Your task to perform on an android device: What's the weather going to be tomorrow? Image 0: 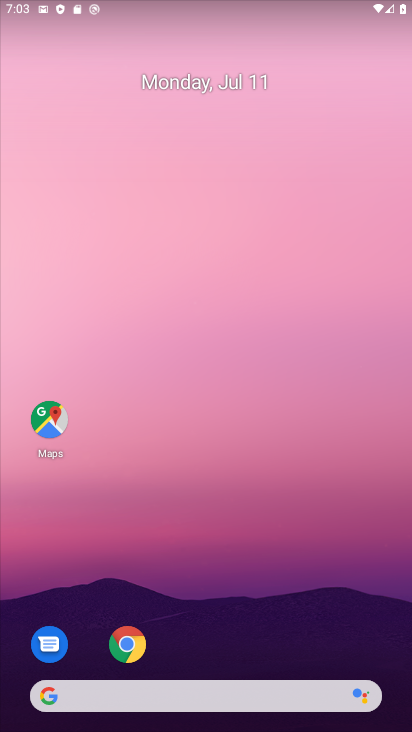
Step 0: click (205, 698)
Your task to perform on an android device: What's the weather going to be tomorrow? Image 1: 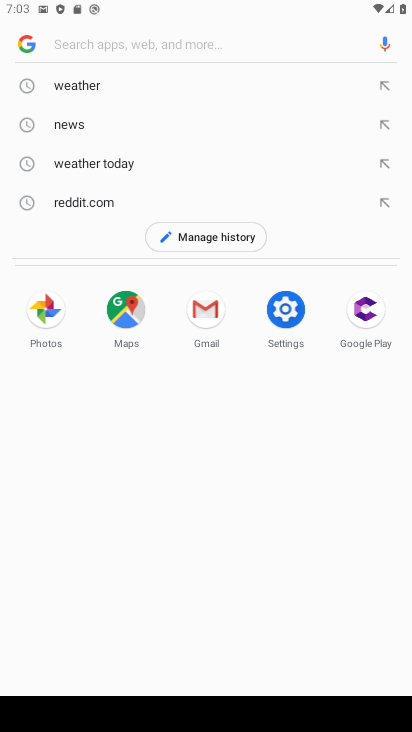
Step 1: click (87, 78)
Your task to perform on an android device: What's the weather going to be tomorrow? Image 2: 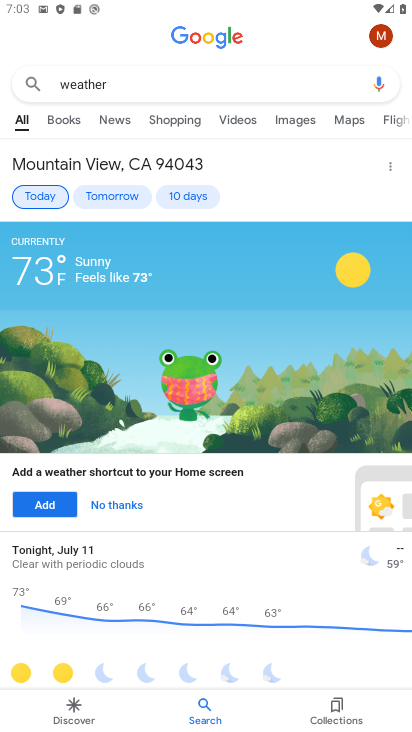
Step 2: click (102, 195)
Your task to perform on an android device: What's the weather going to be tomorrow? Image 3: 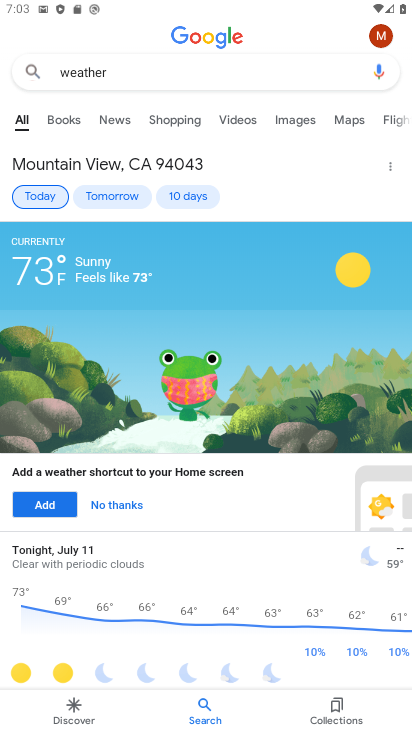
Step 3: click (102, 195)
Your task to perform on an android device: What's the weather going to be tomorrow? Image 4: 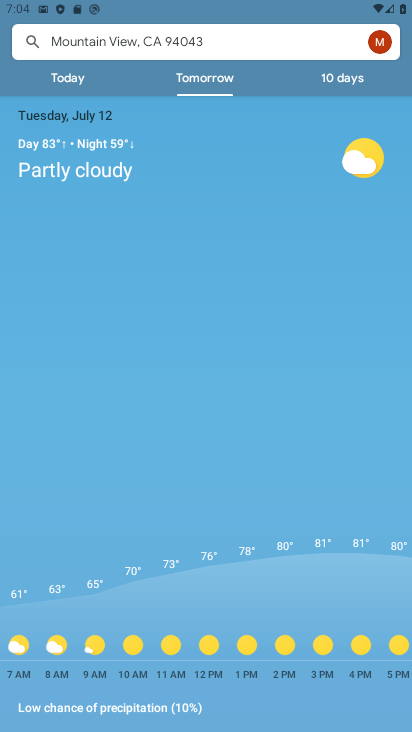
Step 4: task complete